Your task to perform on an android device: Open calendar and show me the second week of next month Image 0: 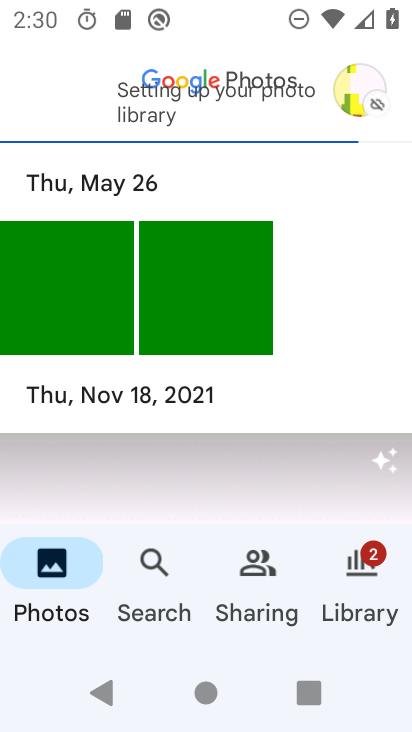
Step 0: press home button
Your task to perform on an android device: Open calendar and show me the second week of next month Image 1: 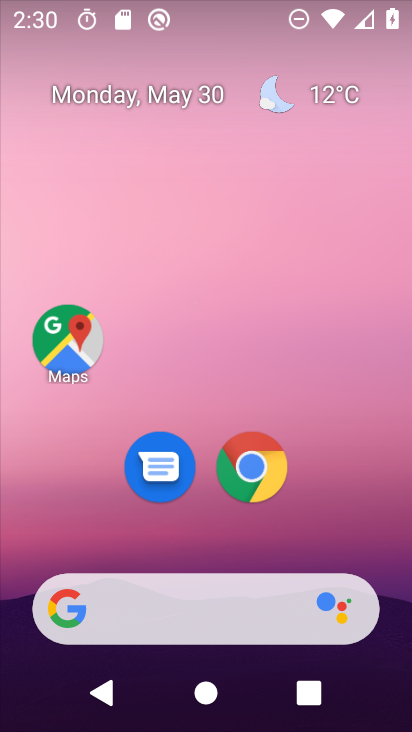
Step 1: drag from (401, 702) to (388, 255)
Your task to perform on an android device: Open calendar and show me the second week of next month Image 2: 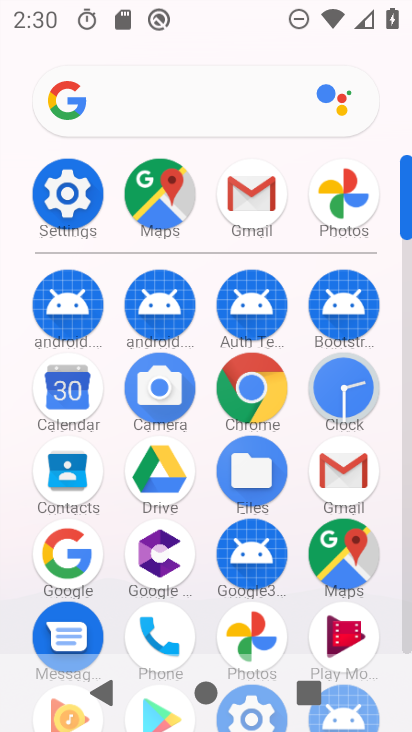
Step 2: click (69, 403)
Your task to perform on an android device: Open calendar and show me the second week of next month Image 3: 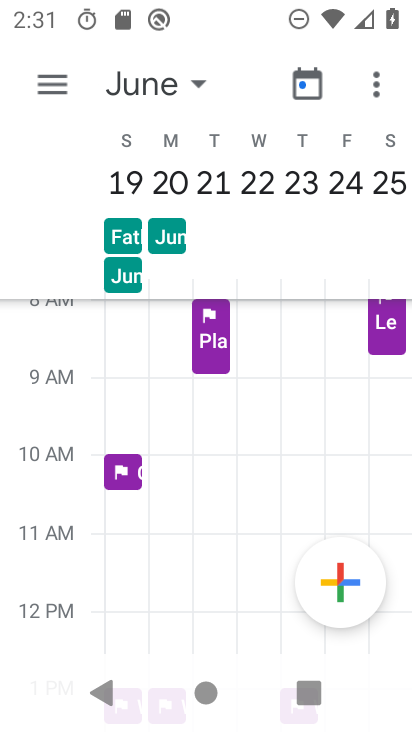
Step 3: press back button
Your task to perform on an android device: Open calendar and show me the second week of next month Image 4: 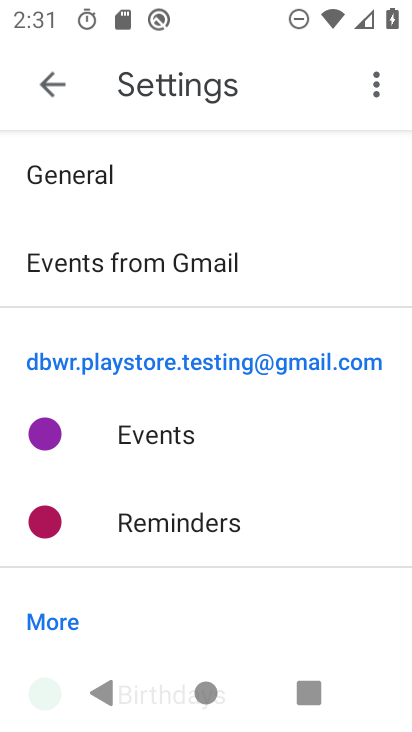
Step 4: press back button
Your task to perform on an android device: Open calendar and show me the second week of next month Image 5: 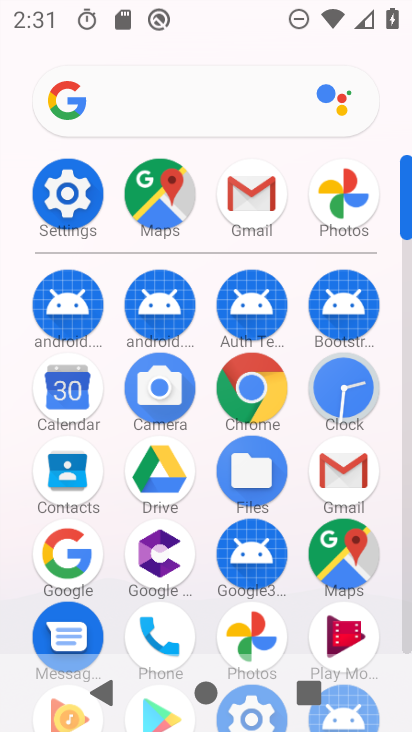
Step 5: click (44, 386)
Your task to perform on an android device: Open calendar and show me the second week of next month Image 6: 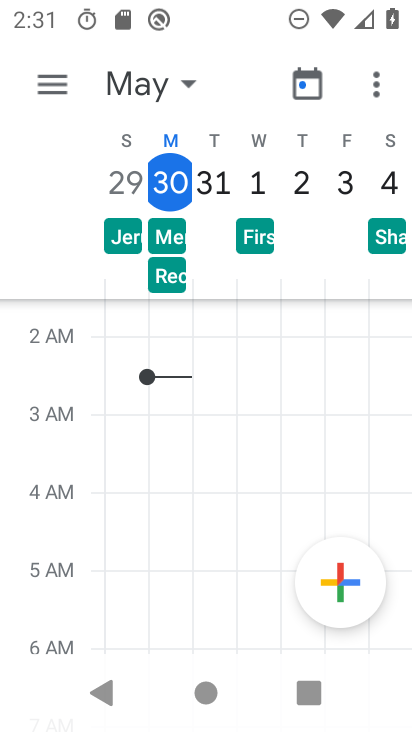
Step 6: click (190, 81)
Your task to perform on an android device: Open calendar and show me the second week of next month Image 7: 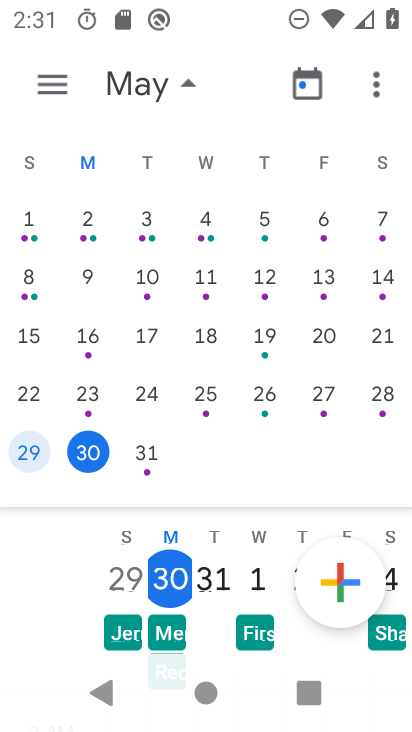
Step 7: drag from (390, 294) to (76, 229)
Your task to perform on an android device: Open calendar and show me the second week of next month Image 8: 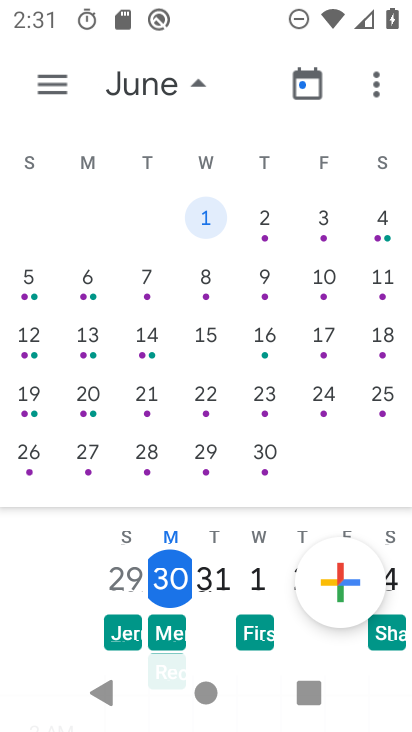
Step 8: click (259, 272)
Your task to perform on an android device: Open calendar and show me the second week of next month Image 9: 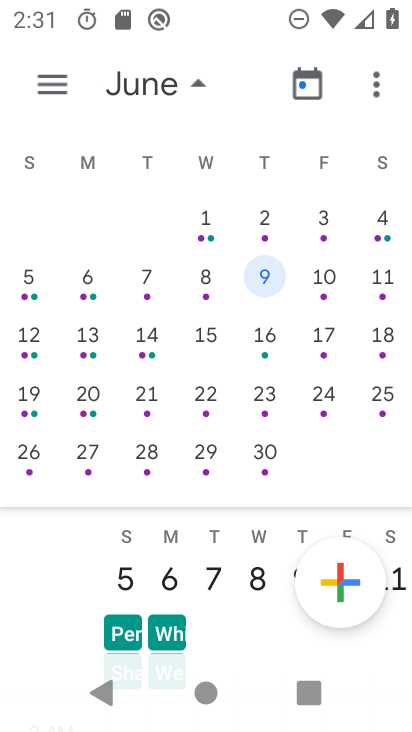
Step 9: click (48, 75)
Your task to perform on an android device: Open calendar and show me the second week of next month Image 10: 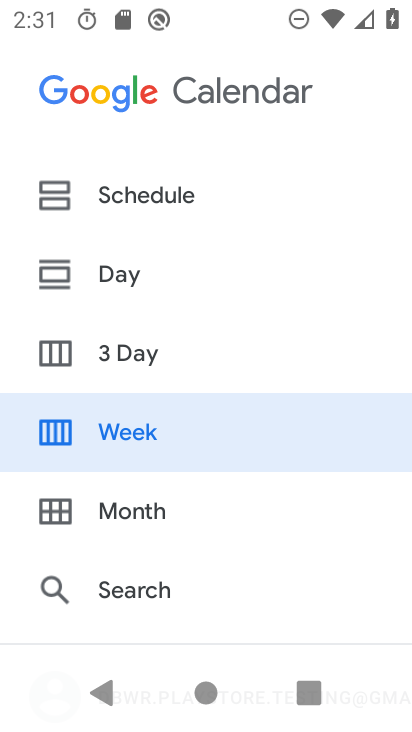
Step 10: click (134, 429)
Your task to perform on an android device: Open calendar and show me the second week of next month Image 11: 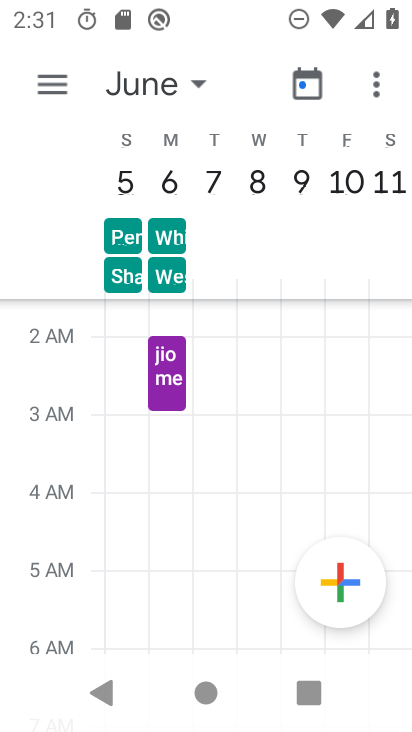
Step 11: task complete